Your task to perform on an android device: toggle priority inbox in the gmail app Image 0: 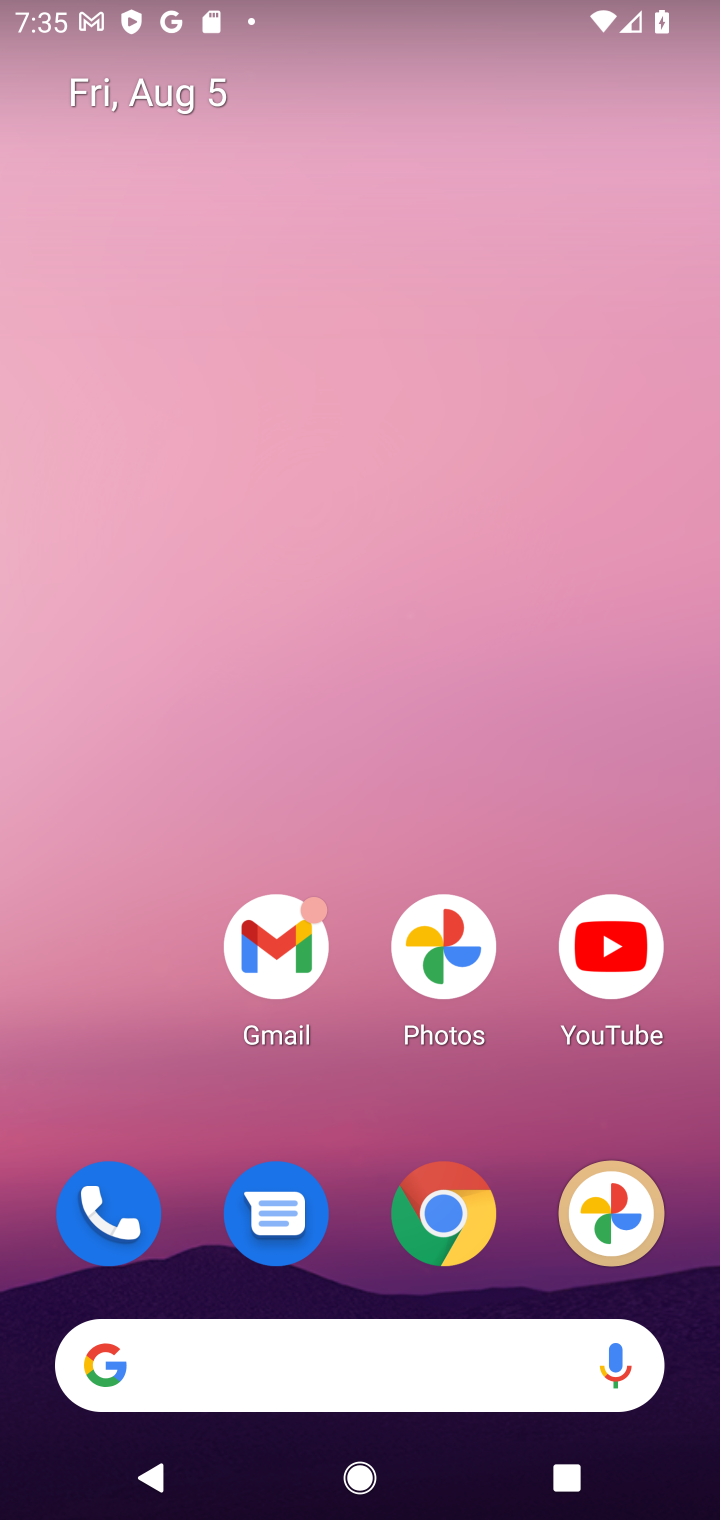
Step 0: drag from (383, 1267) to (458, 325)
Your task to perform on an android device: toggle priority inbox in the gmail app Image 1: 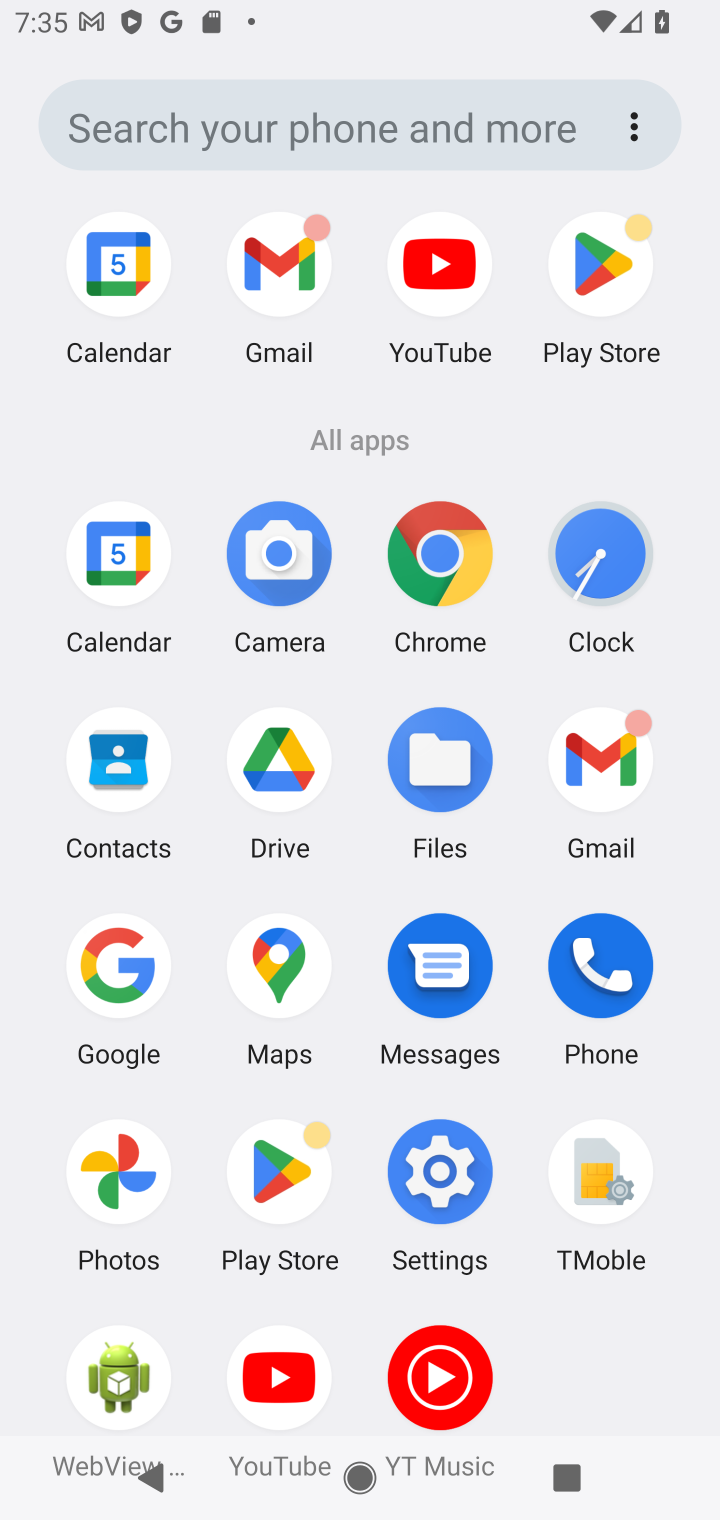
Step 1: click (579, 756)
Your task to perform on an android device: toggle priority inbox in the gmail app Image 2: 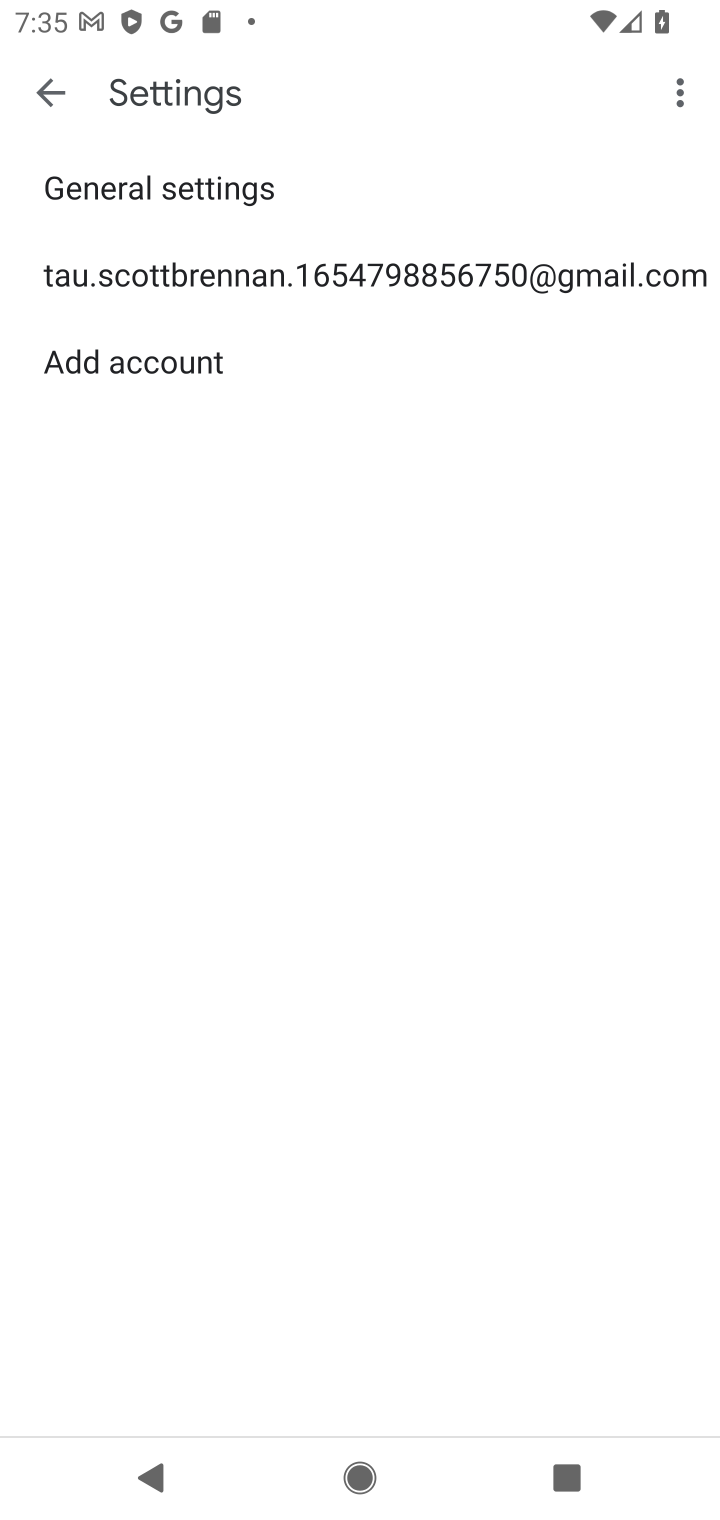
Step 2: click (65, 66)
Your task to perform on an android device: toggle priority inbox in the gmail app Image 3: 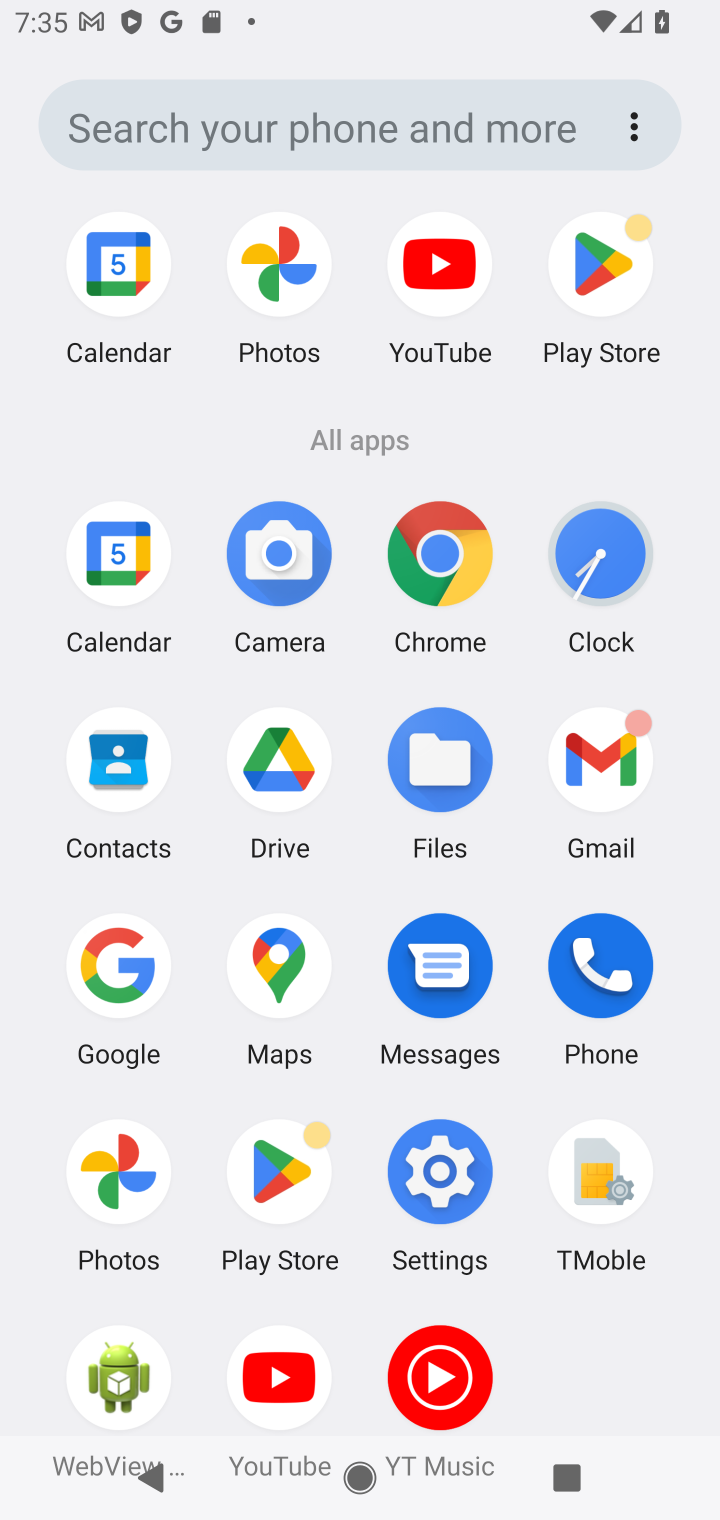
Step 3: click (169, 246)
Your task to perform on an android device: toggle priority inbox in the gmail app Image 4: 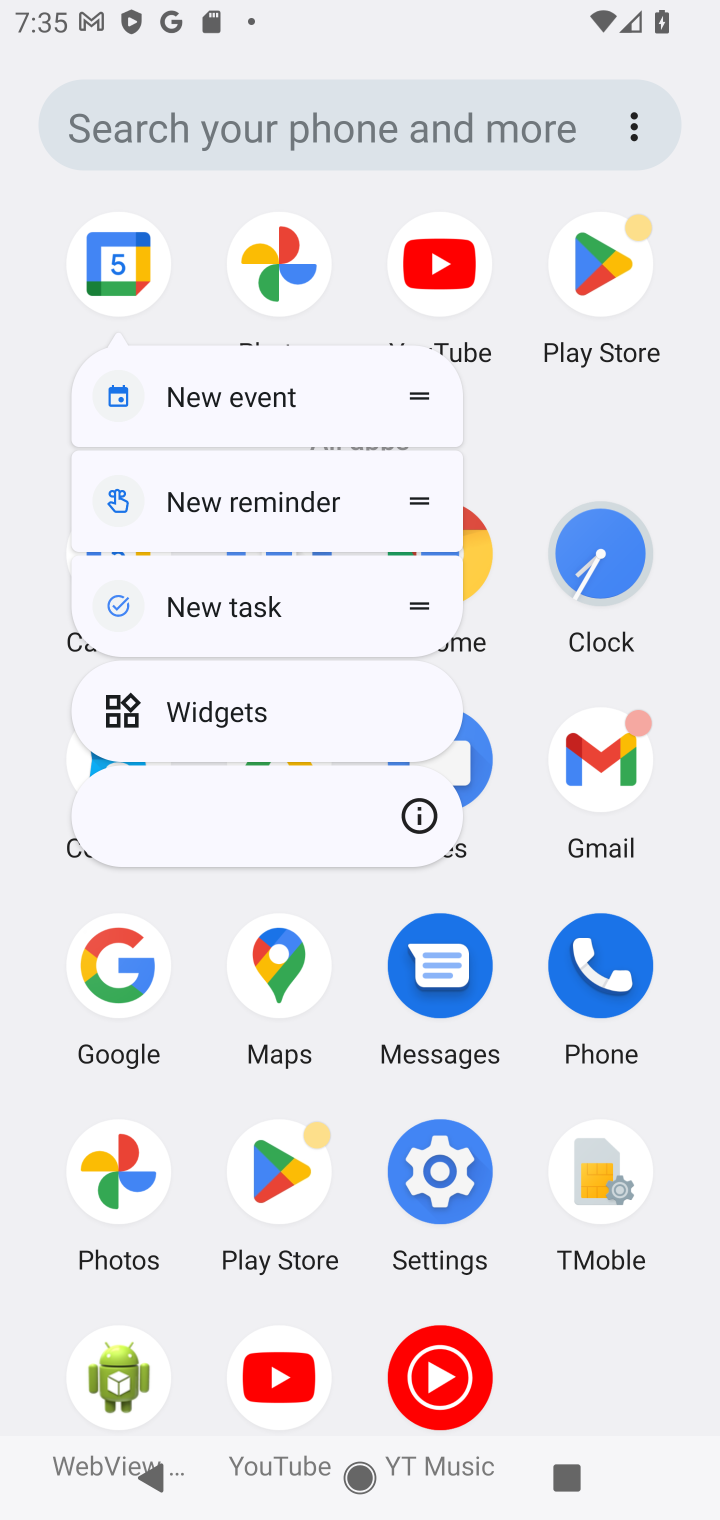
Step 4: click (587, 740)
Your task to perform on an android device: toggle priority inbox in the gmail app Image 5: 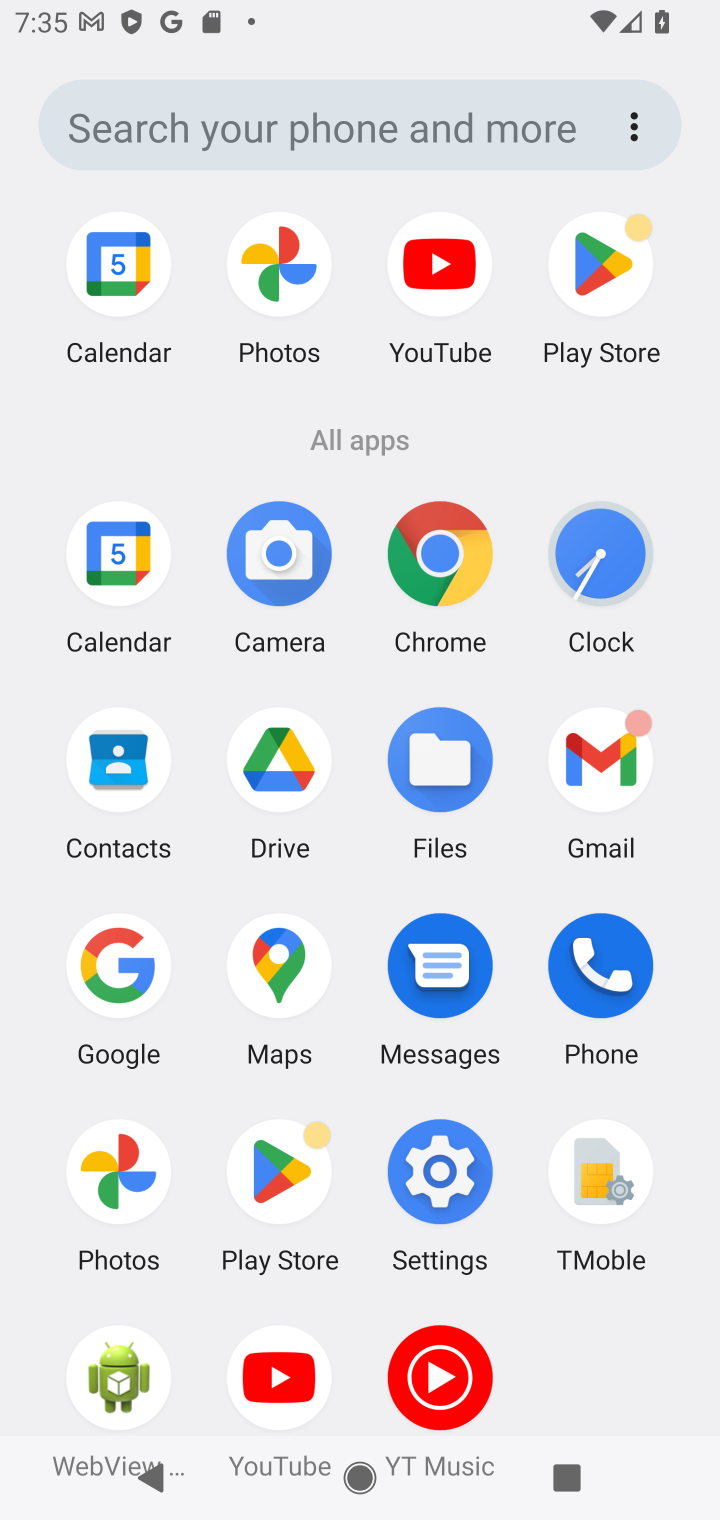
Step 5: click (591, 770)
Your task to perform on an android device: toggle priority inbox in the gmail app Image 6: 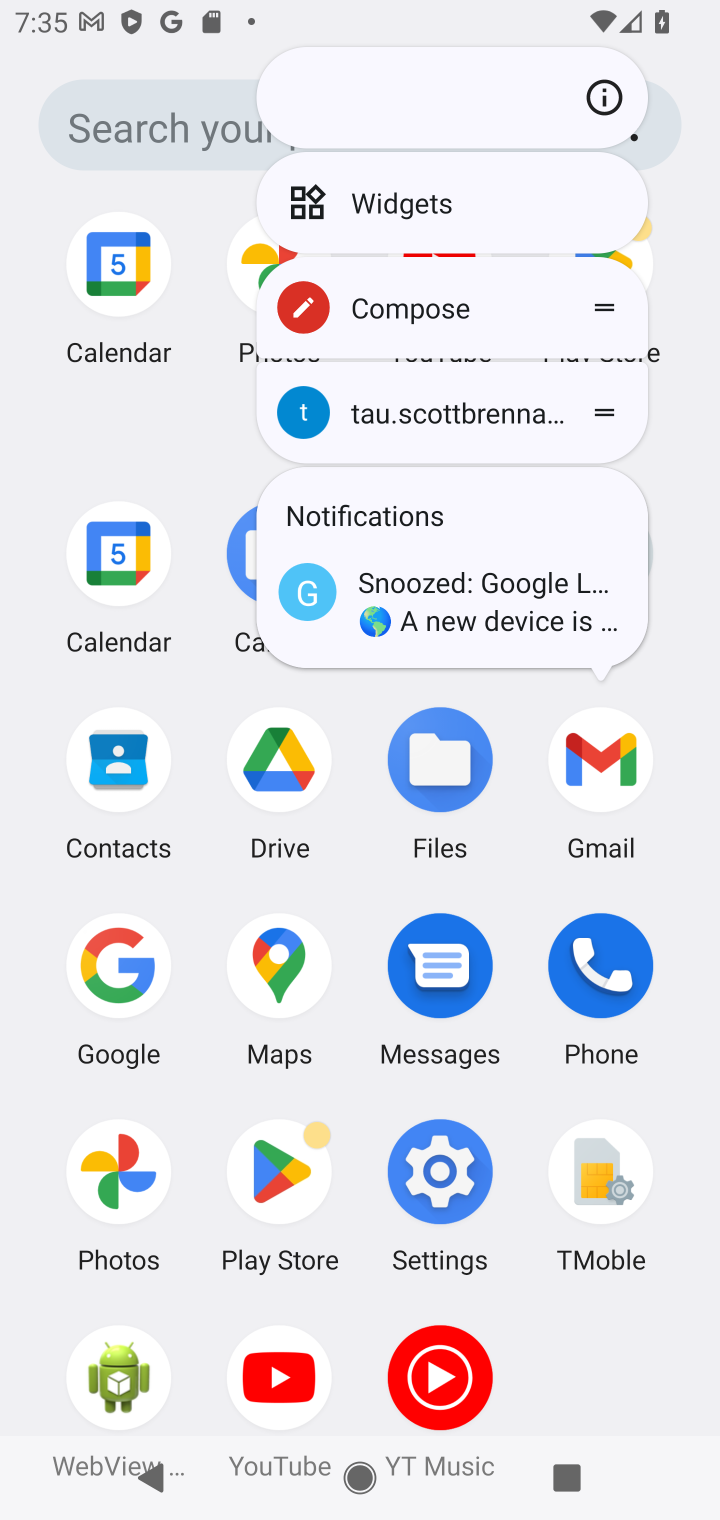
Step 6: click (571, 740)
Your task to perform on an android device: toggle priority inbox in the gmail app Image 7: 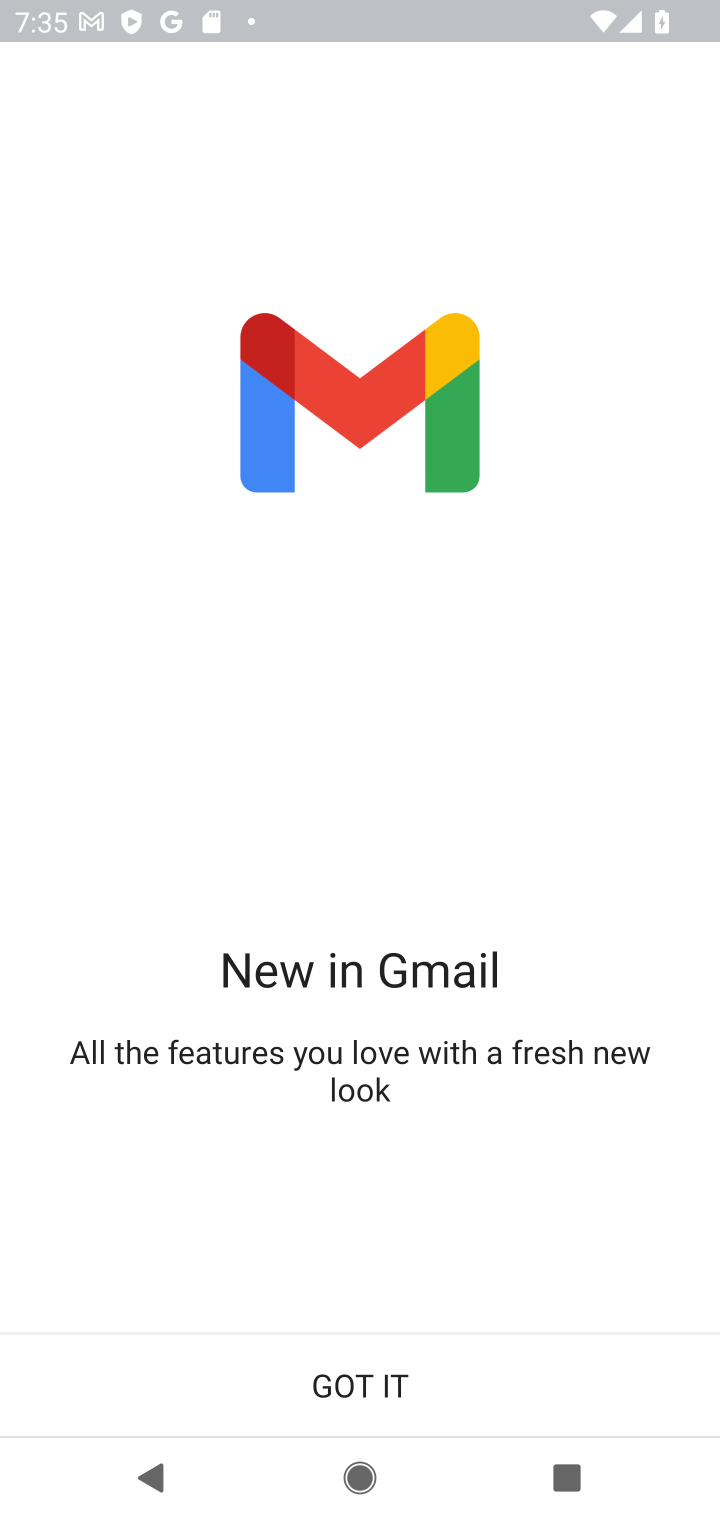
Step 7: click (465, 1353)
Your task to perform on an android device: toggle priority inbox in the gmail app Image 8: 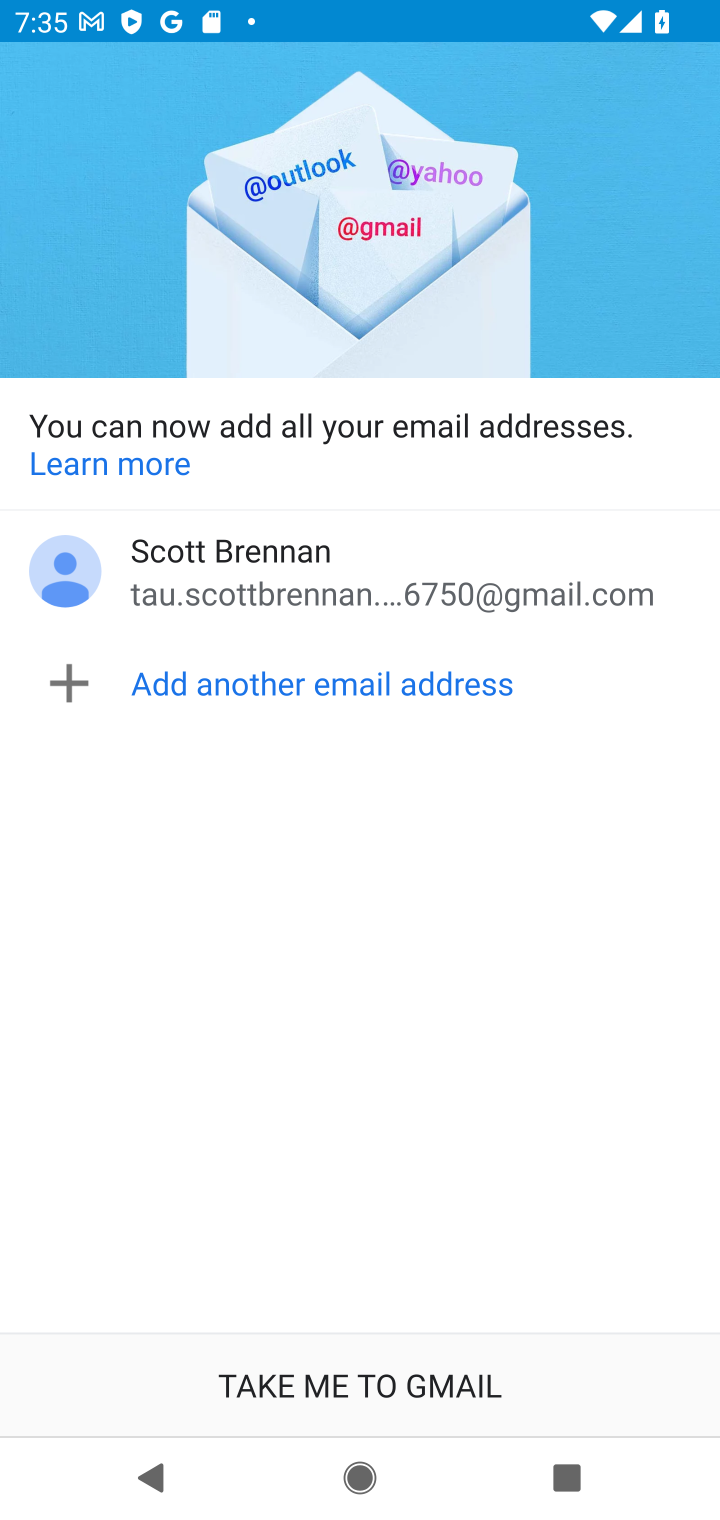
Step 8: click (347, 1379)
Your task to perform on an android device: toggle priority inbox in the gmail app Image 9: 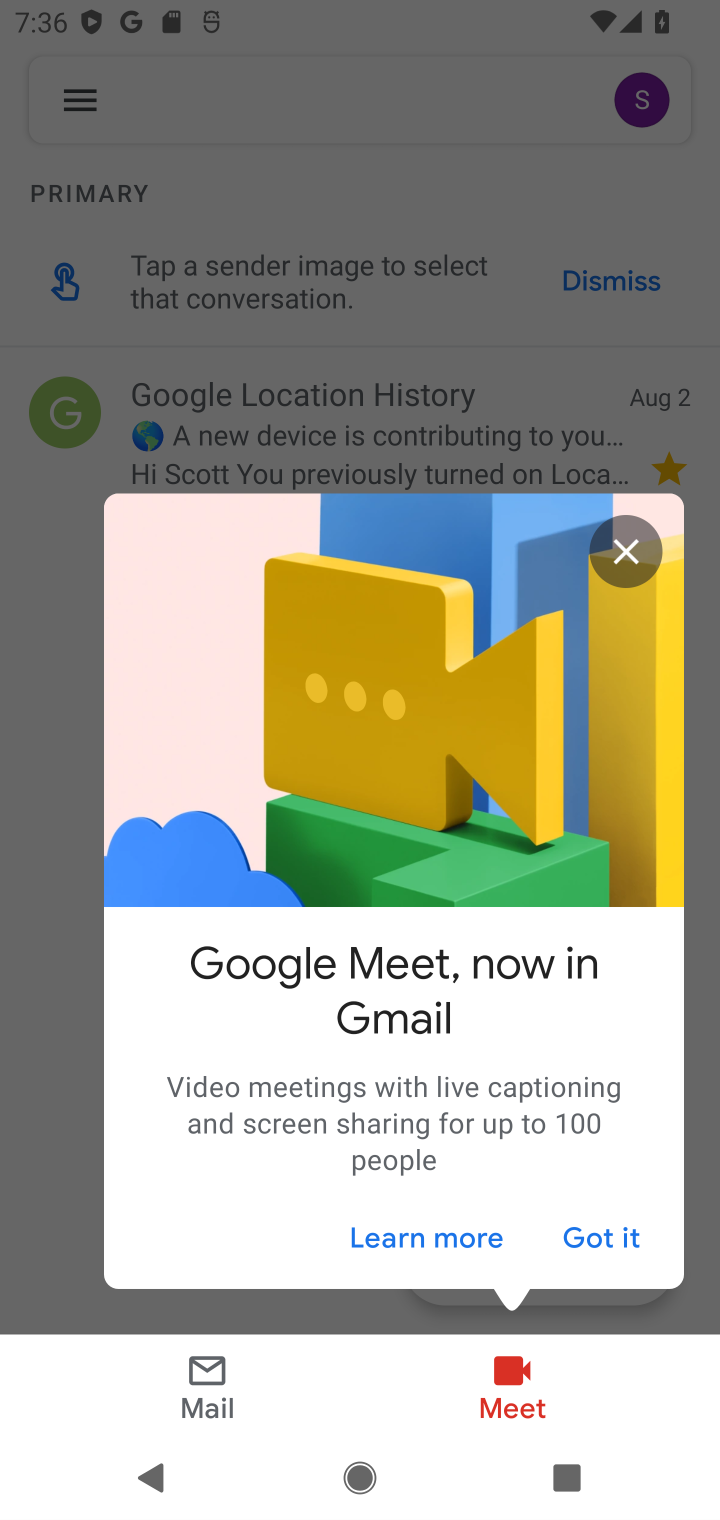
Step 9: click (626, 1236)
Your task to perform on an android device: toggle priority inbox in the gmail app Image 10: 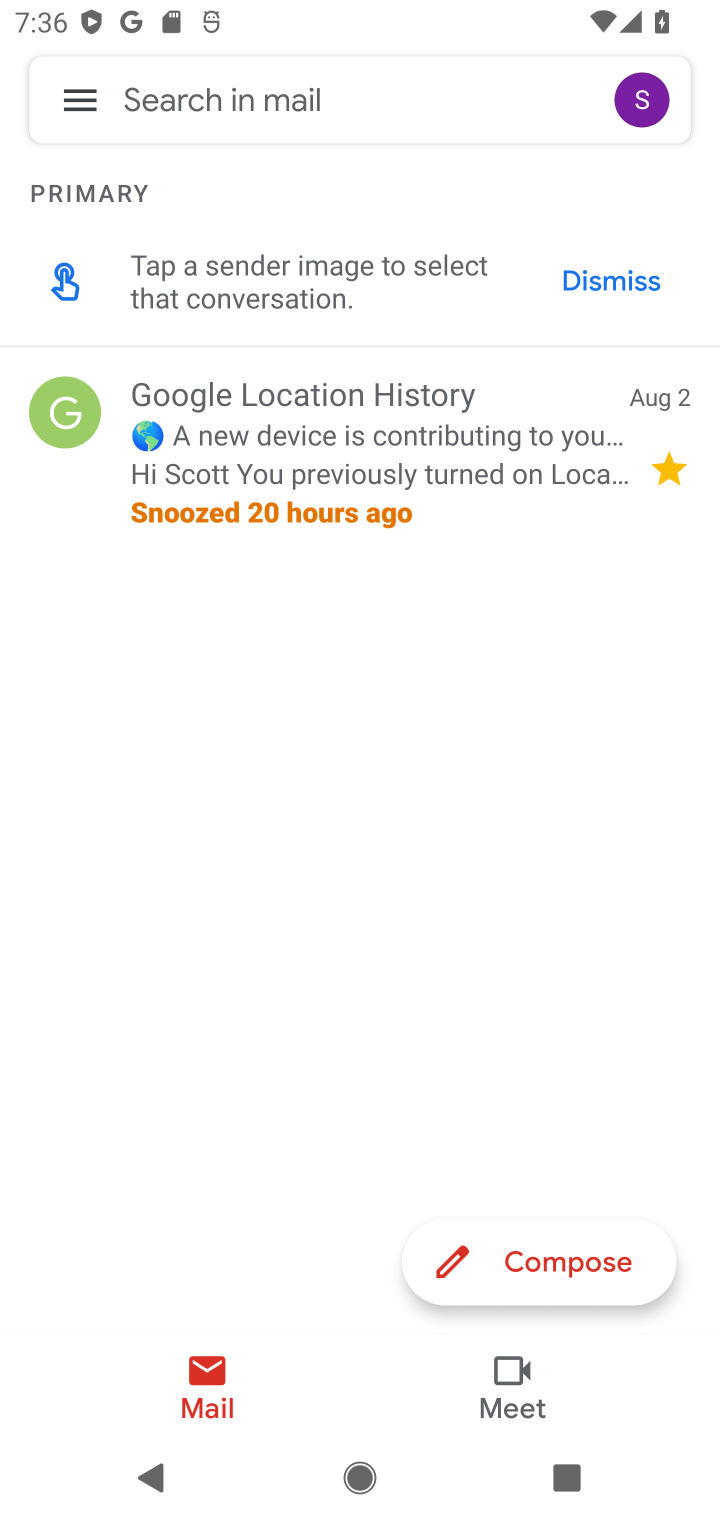
Step 10: click (101, 85)
Your task to perform on an android device: toggle priority inbox in the gmail app Image 11: 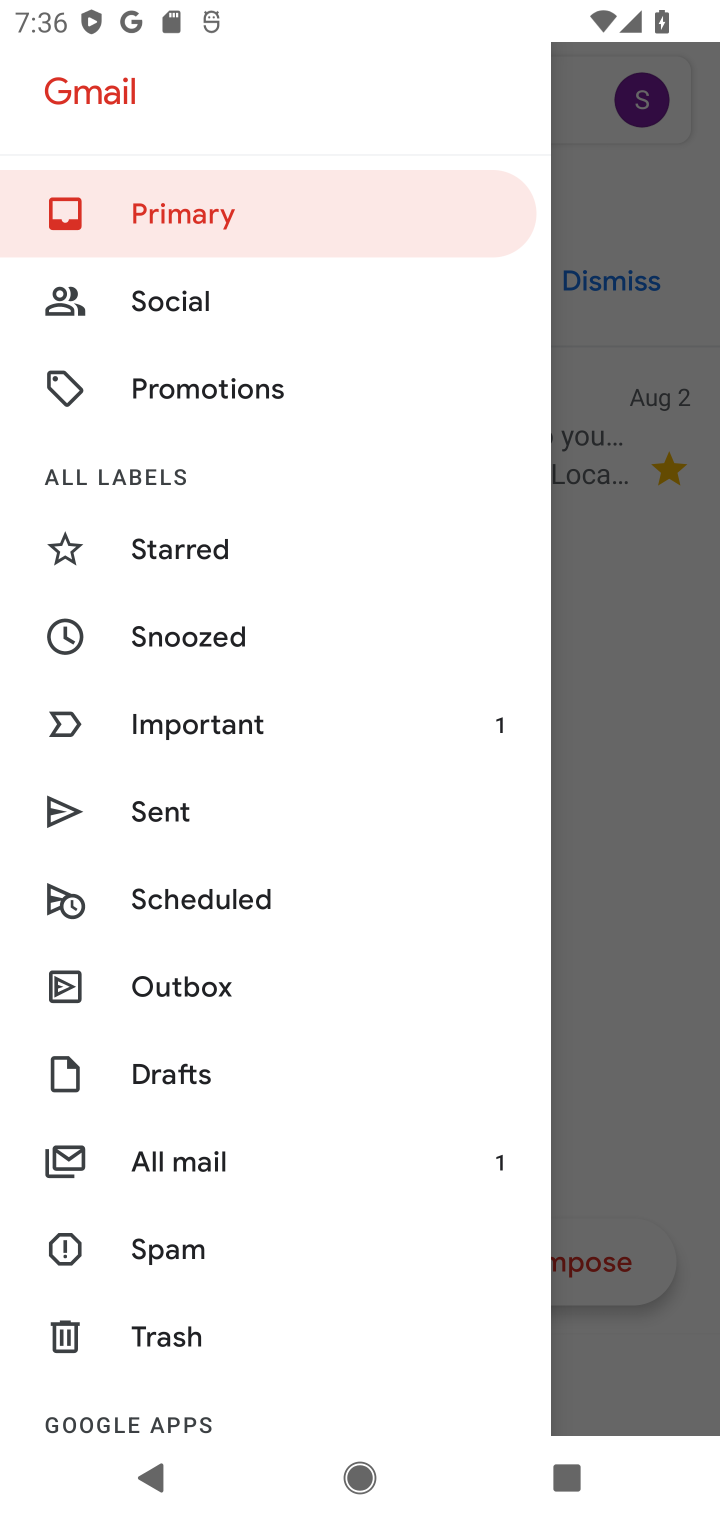
Step 11: drag from (239, 1296) to (380, 433)
Your task to perform on an android device: toggle priority inbox in the gmail app Image 12: 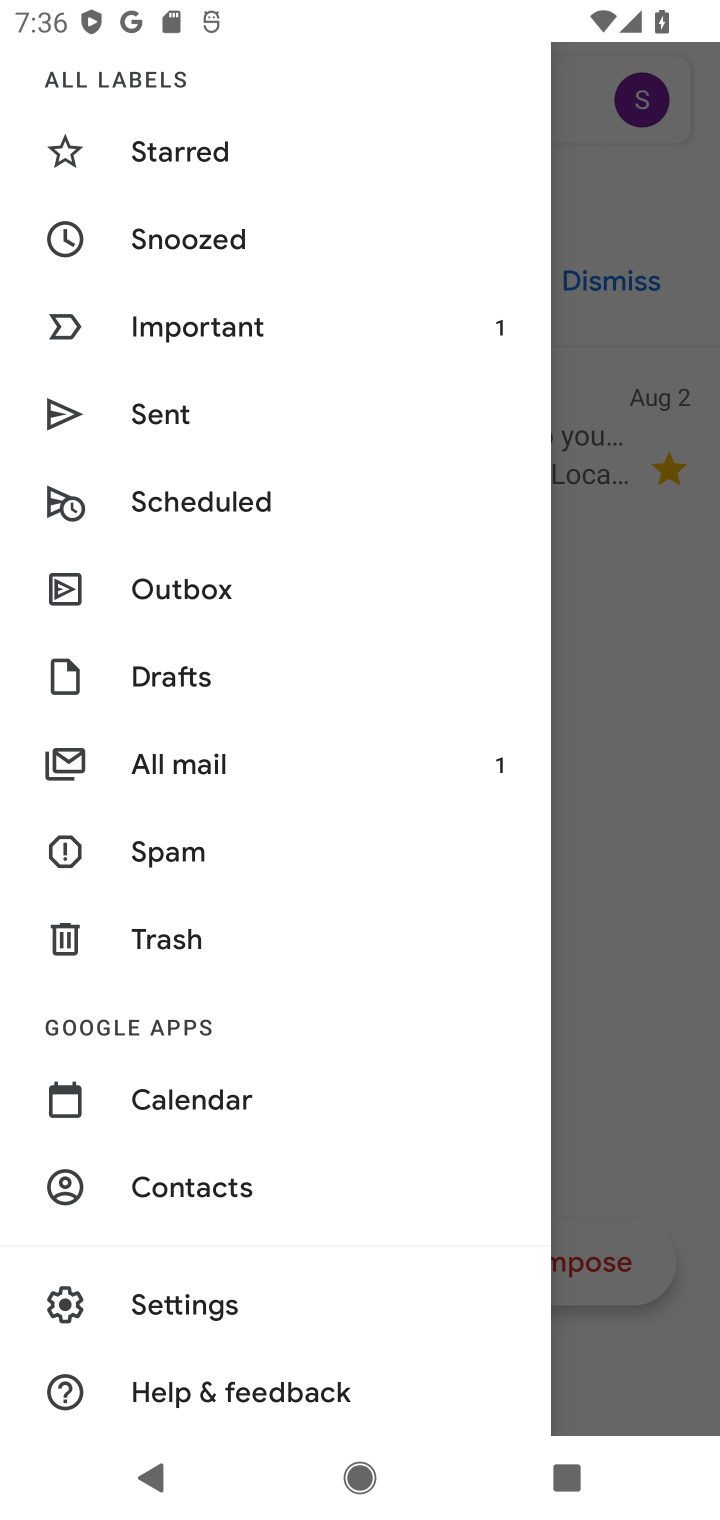
Step 12: click (195, 1297)
Your task to perform on an android device: toggle priority inbox in the gmail app Image 13: 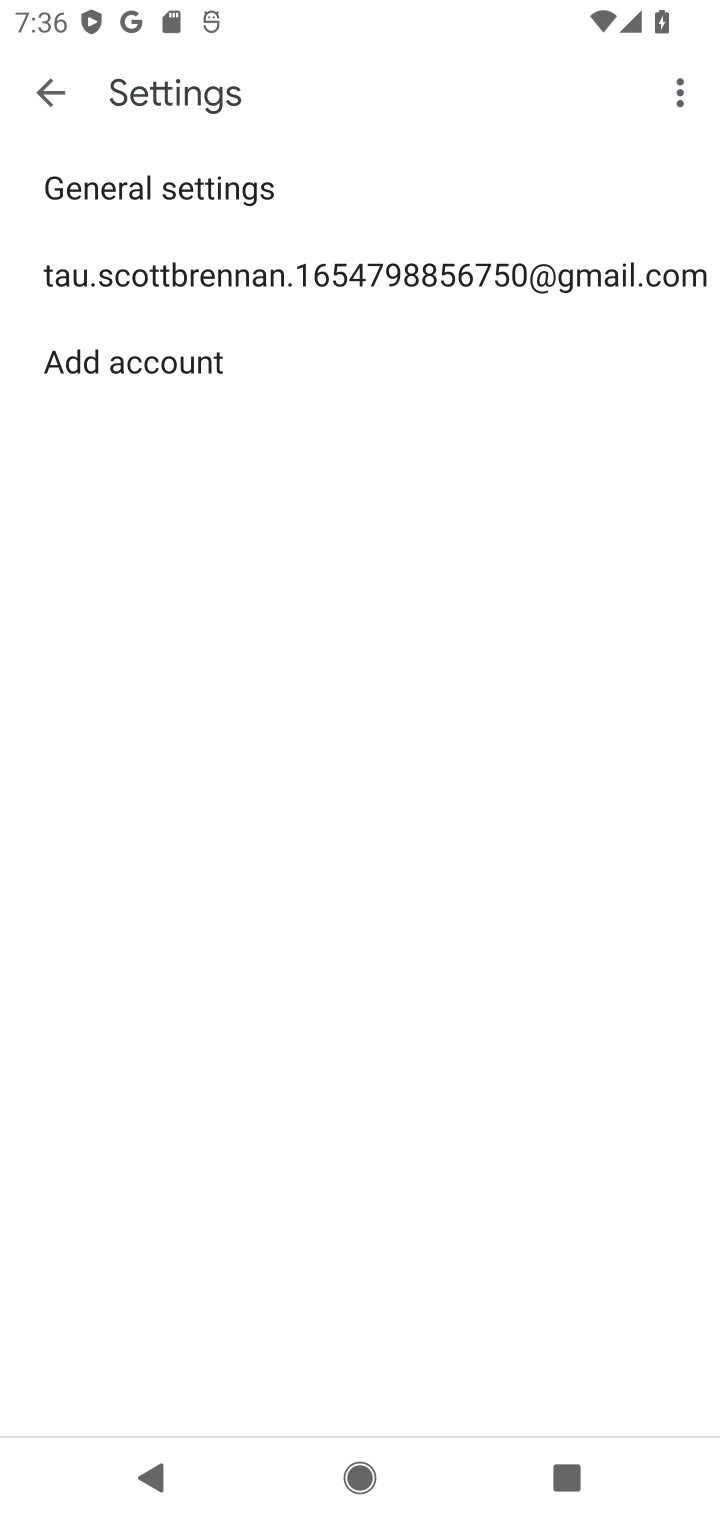
Step 13: click (151, 258)
Your task to perform on an android device: toggle priority inbox in the gmail app Image 14: 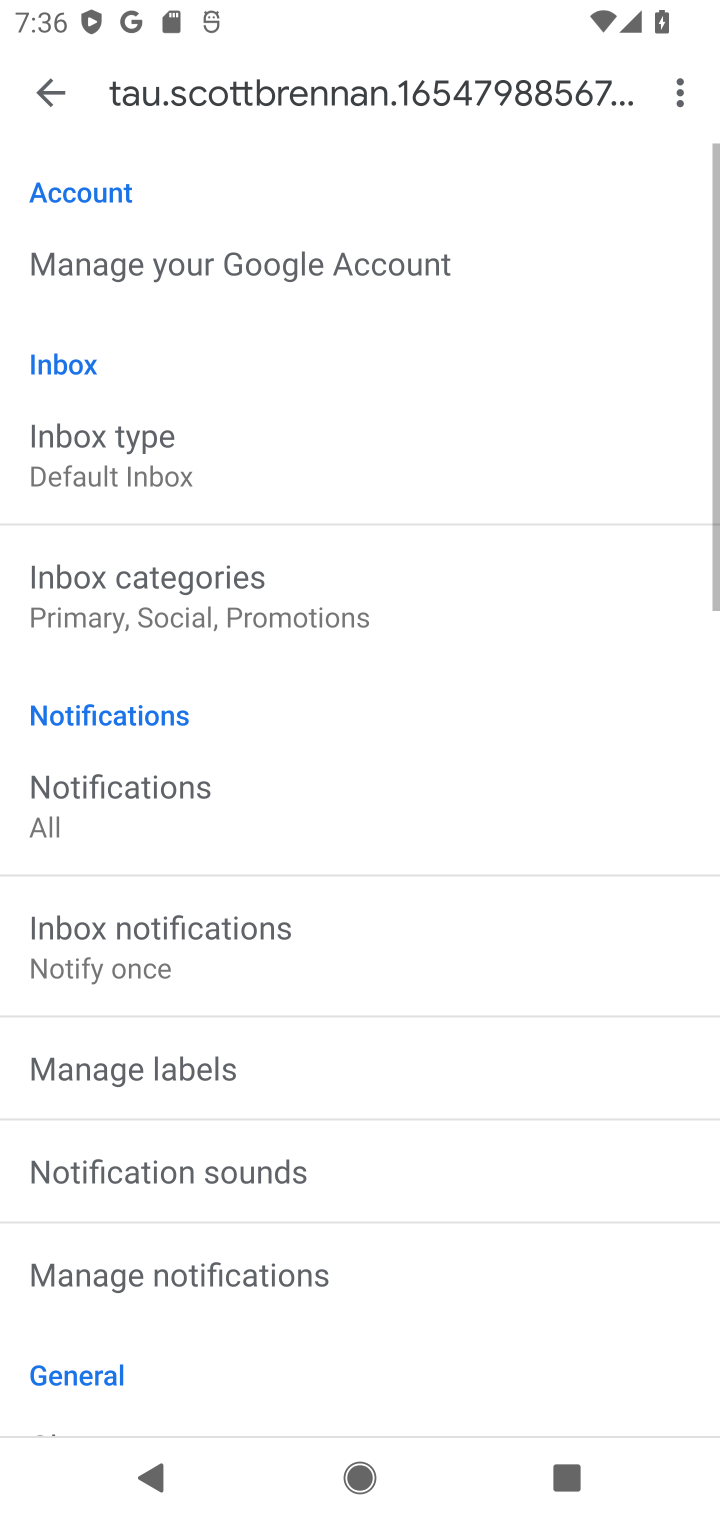
Step 14: click (154, 484)
Your task to perform on an android device: toggle priority inbox in the gmail app Image 15: 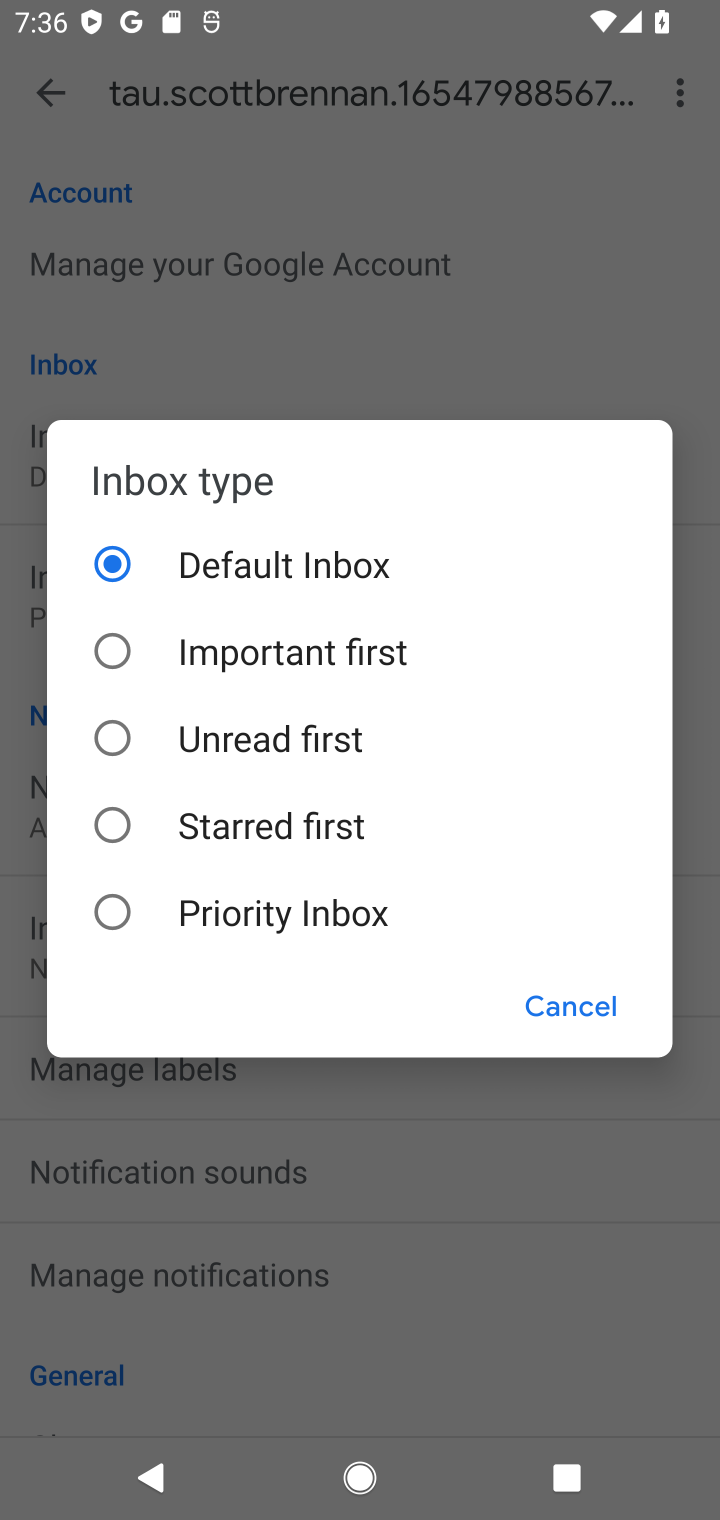
Step 15: click (248, 893)
Your task to perform on an android device: toggle priority inbox in the gmail app Image 16: 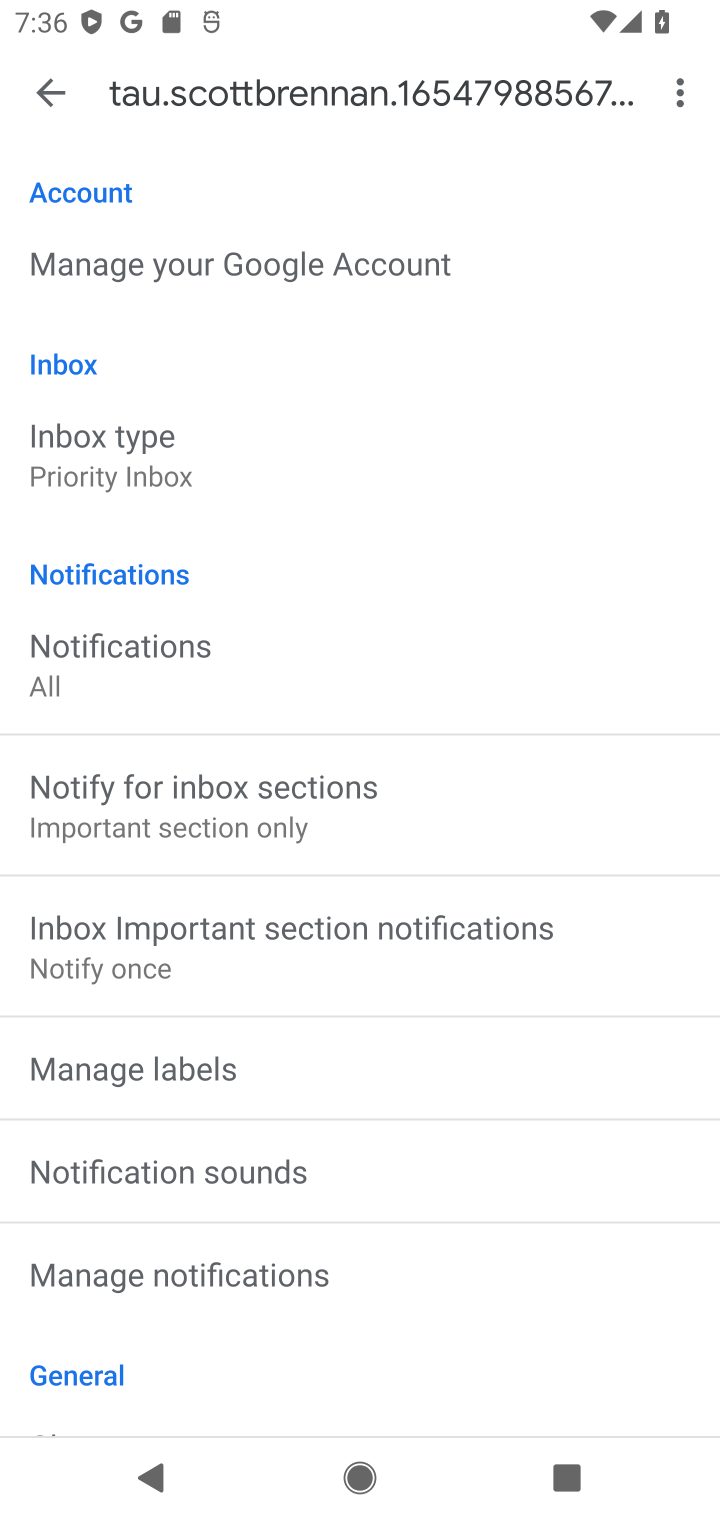
Step 16: task complete